Your task to perform on an android device: toggle translation in the chrome app Image 0: 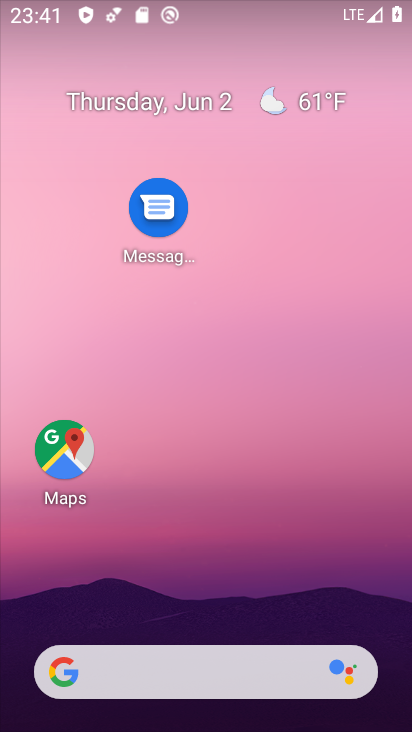
Step 0: drag from (230, 629) to (219, 76)
Your task to perform on an android device: toggle translation in the chrome app Image 1: 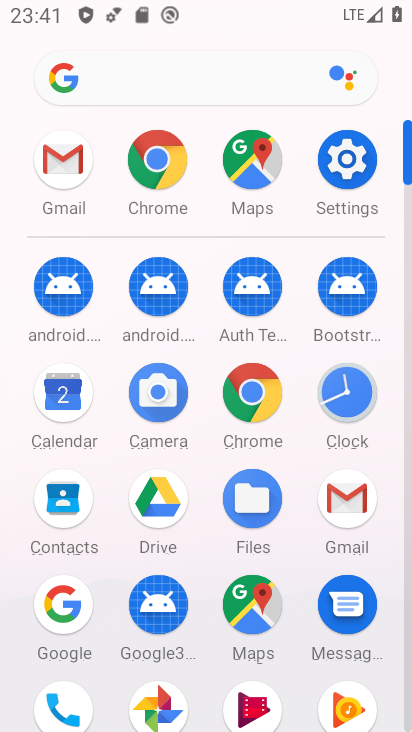
Step 1: click (268, 395)
Your task to perform on an android device: toggle translation in the chrome app Image 2: 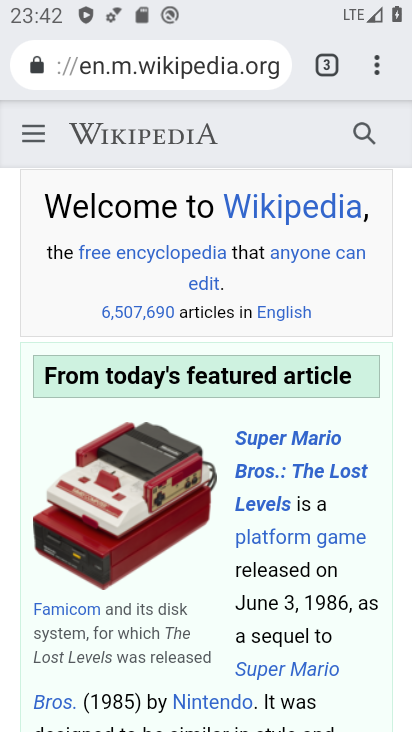
Step 2: click (366, 70)
Your task to perform on an android device: toggle translation in the chrome app Image 3: 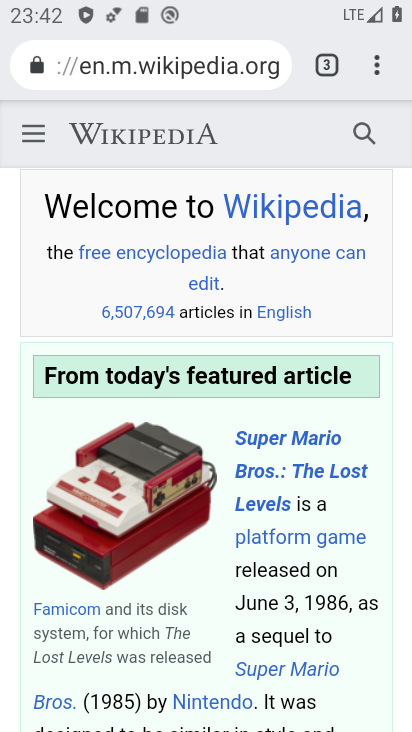
Step 3: drag from (378, 51) to (155, 635)
Your task to perform on an android device: toggle translation in the chrome app Image 4: 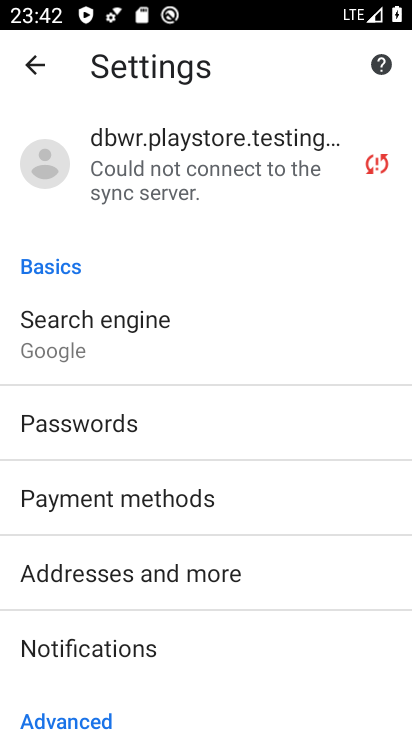
Step 4: drag from (134, 716) to (137, 80)
Your task to perform on an android device: toggle translation in the chrome app Image 5: 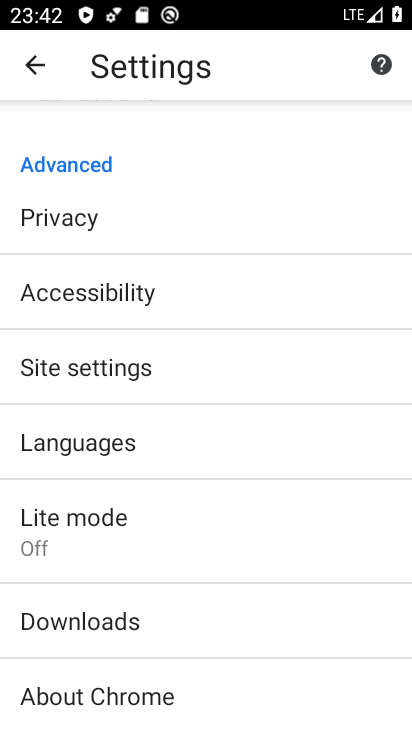
Step 5: click (104, 458)
Your task to perform on an android device: toggle translation in the chrome app Image 6: 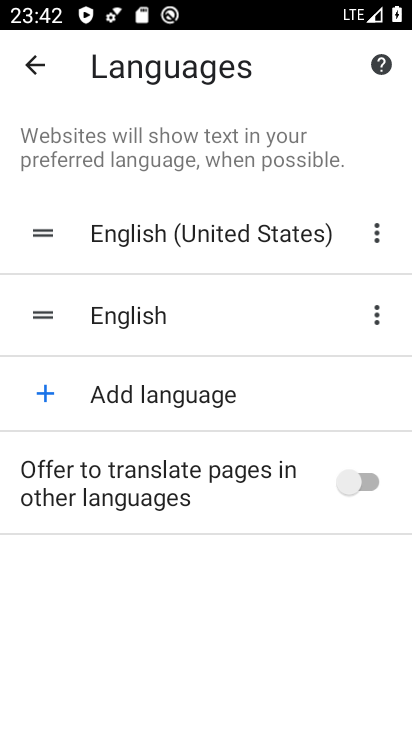
Step 6: click (358, 474)
Your task to perform on an android device: toggle translation in the chrome app Image 7: 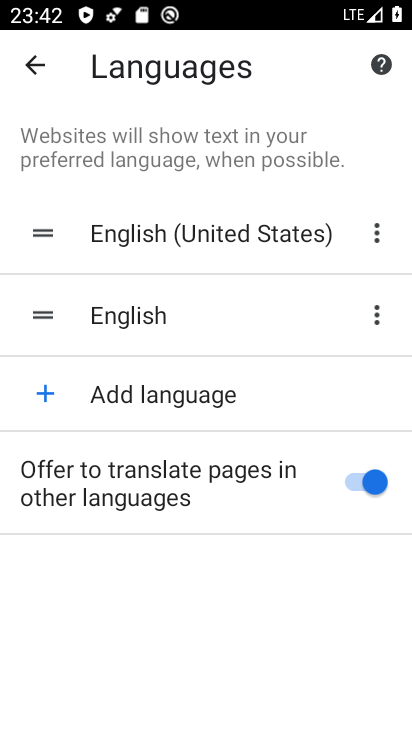
Step 7: task complete